Your task to perform on an android device: uninstall "LinkedIn" Image 0: 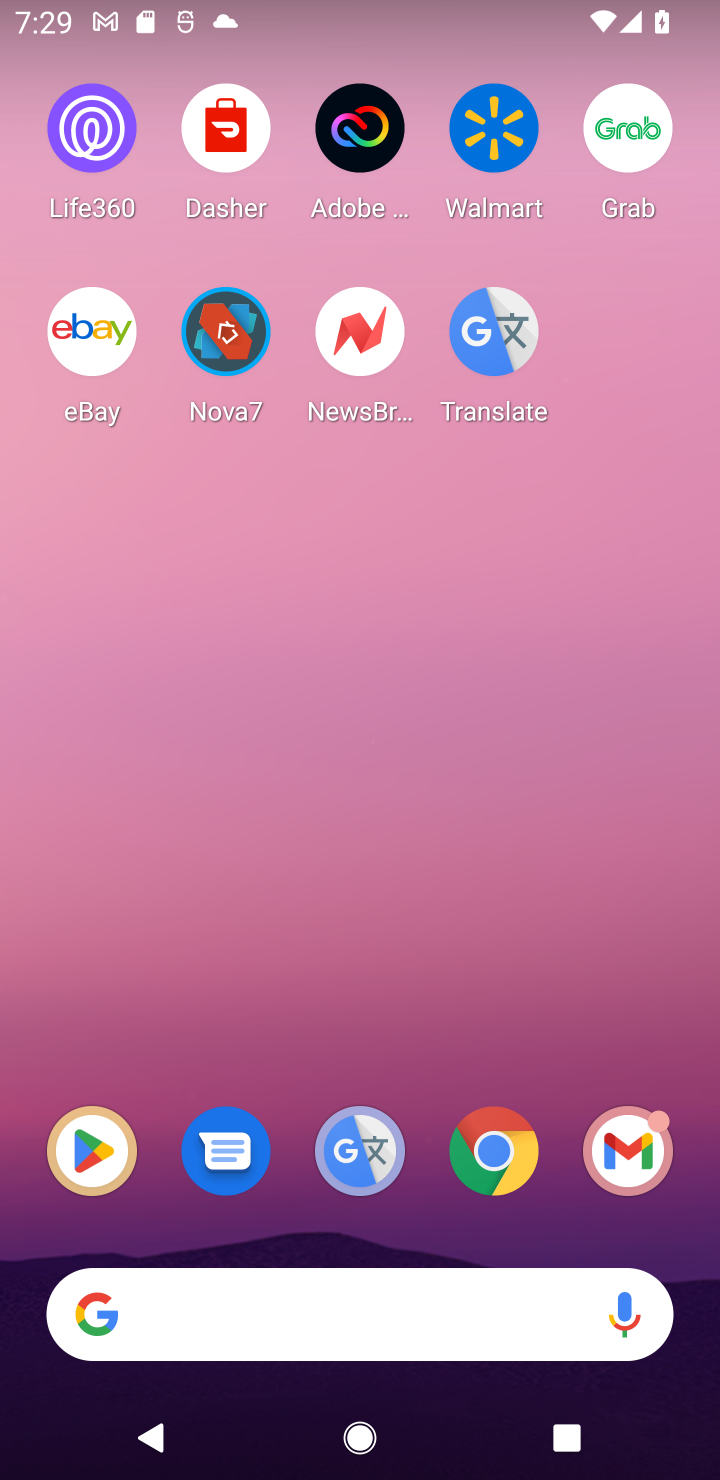
Step 0: click (125, 1165)
Your task to perform on an android device: uninstall "LinkedIn" Image 1: 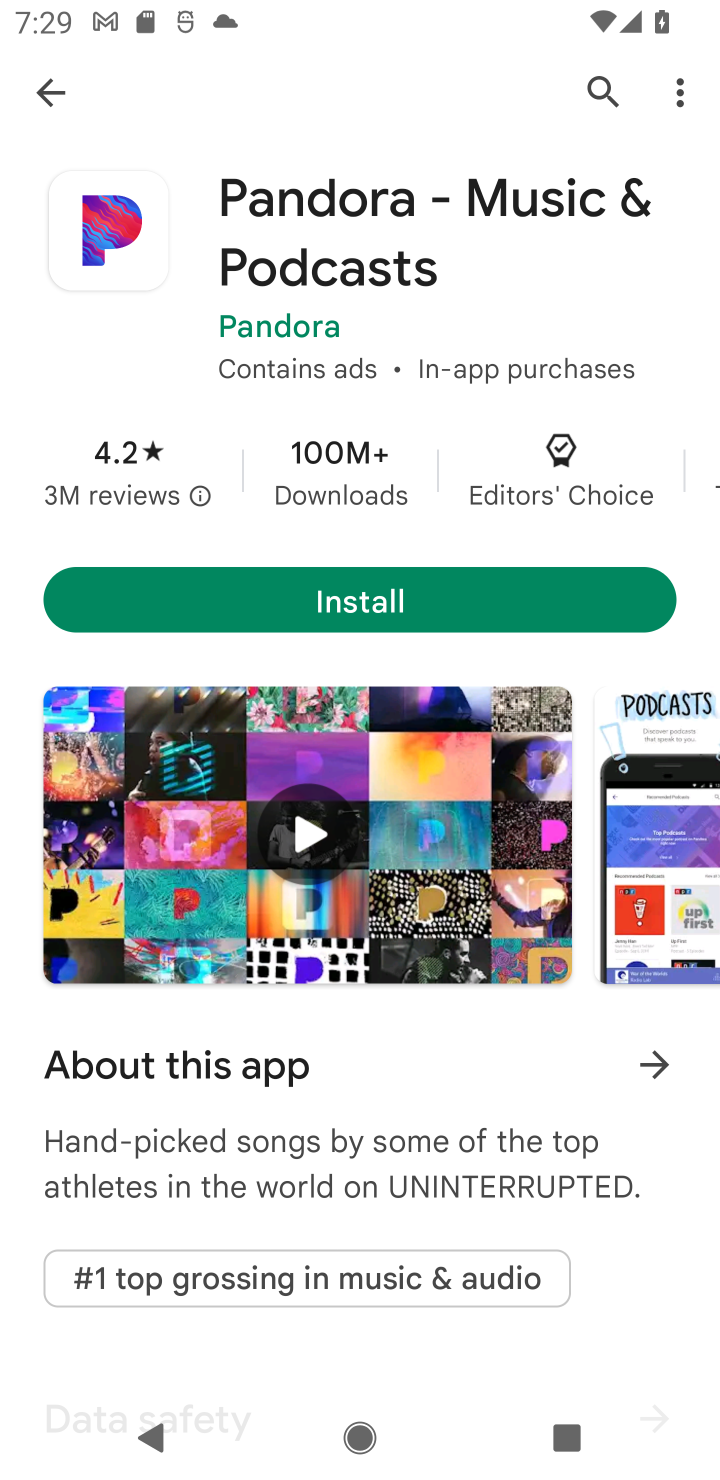
Step 1: click (595, 89)
Your task to perform on an android device: uninstall "LinkedIn" Image 2: 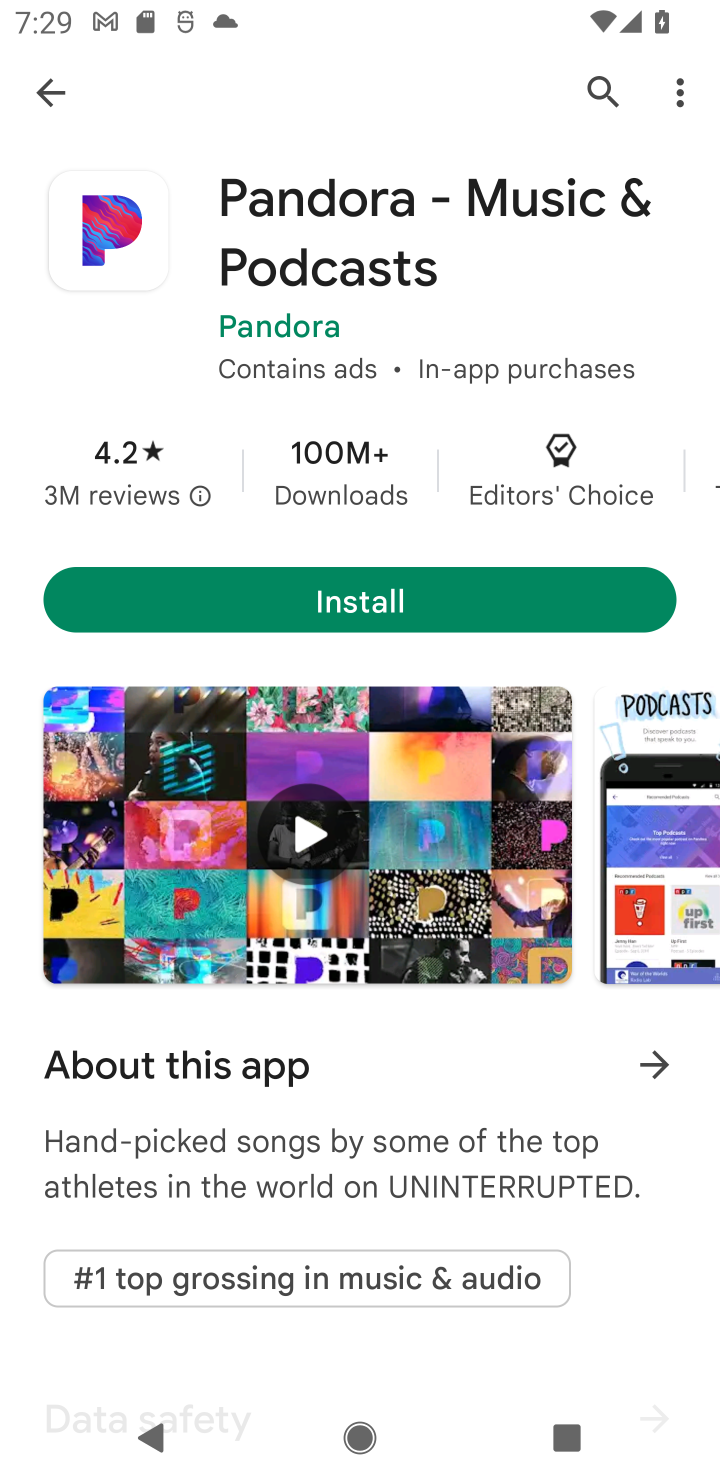
Step 2: click (599, 74)
Your task to perform on an android device: uninstall "LinkedIn" Image 3: 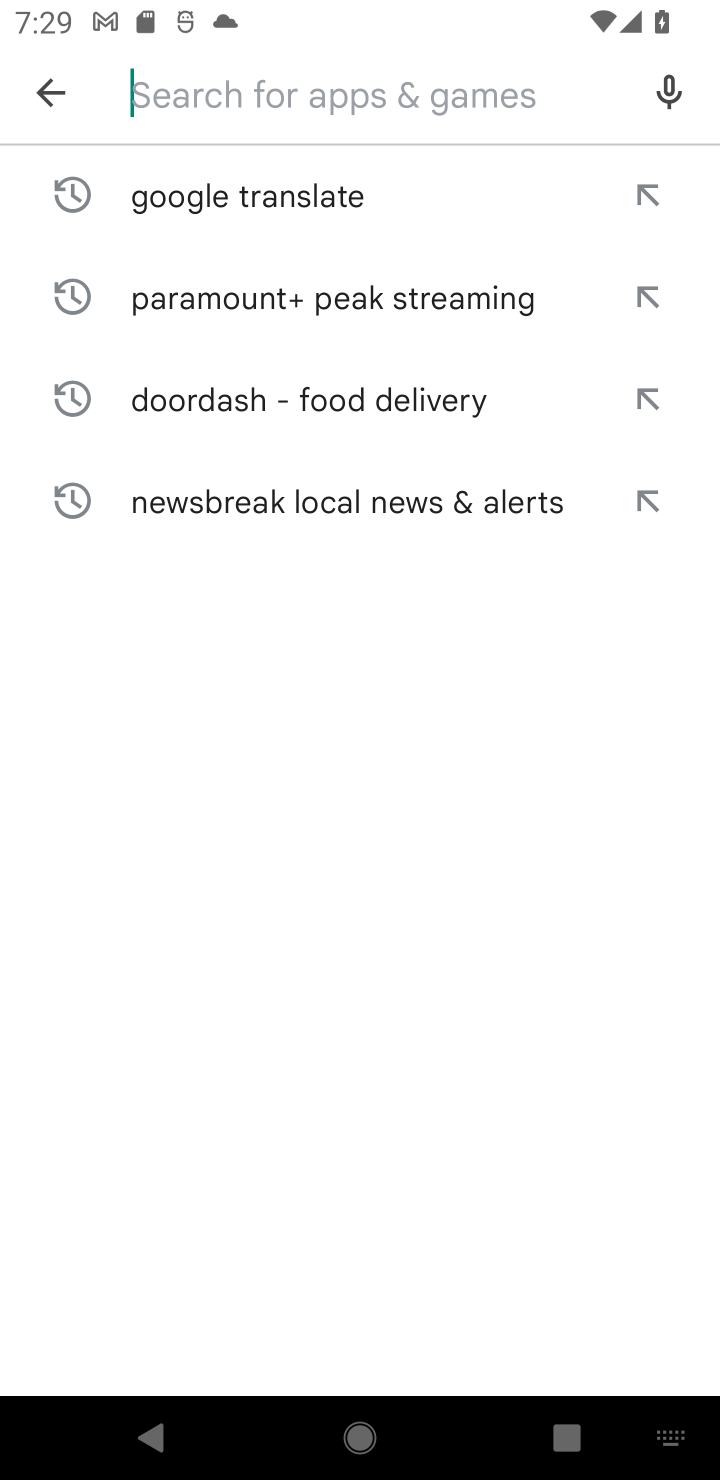
Step 3: type "LinkedIn"
Your task to perform on an android device: uninstall "LinkedIn" Image 4: 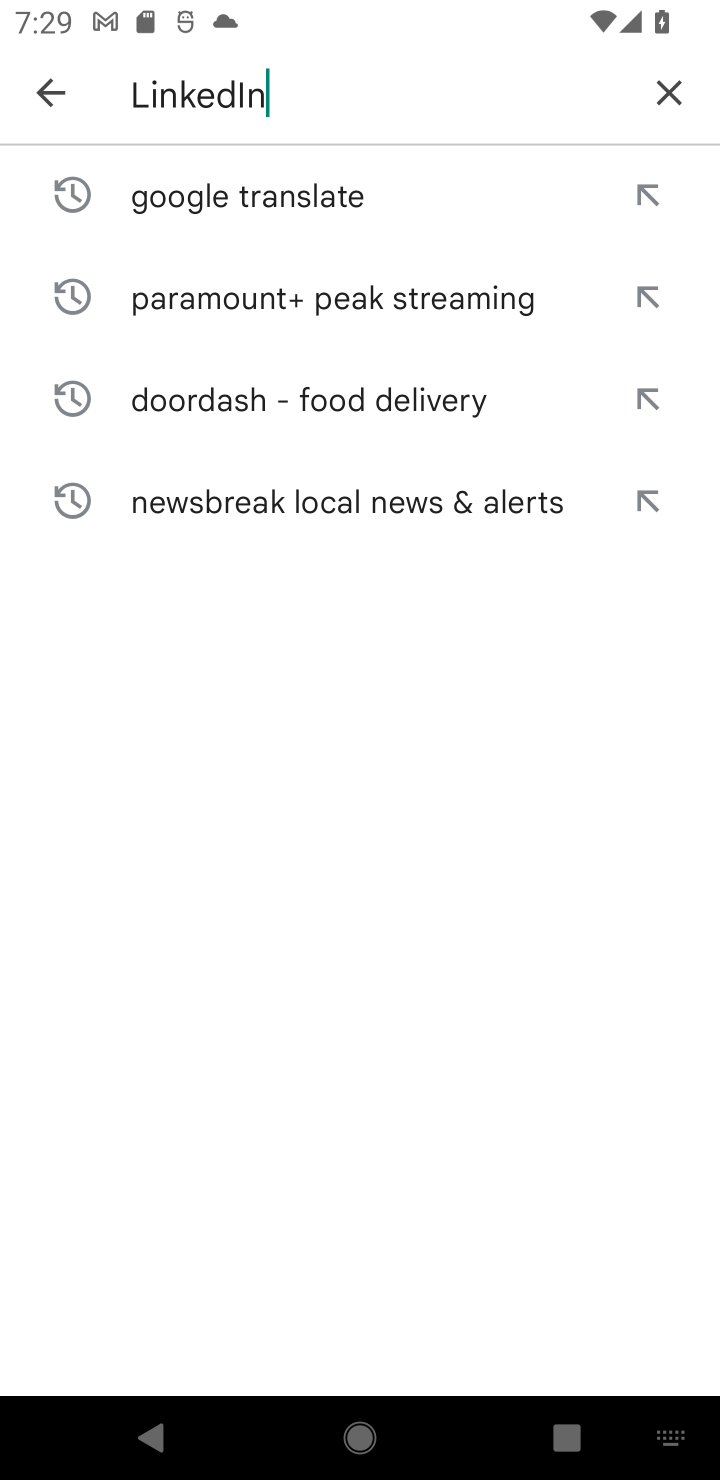
Step 4: type ""
Your task to perform on an android device: uninstall "LinkedIn" Image 5: 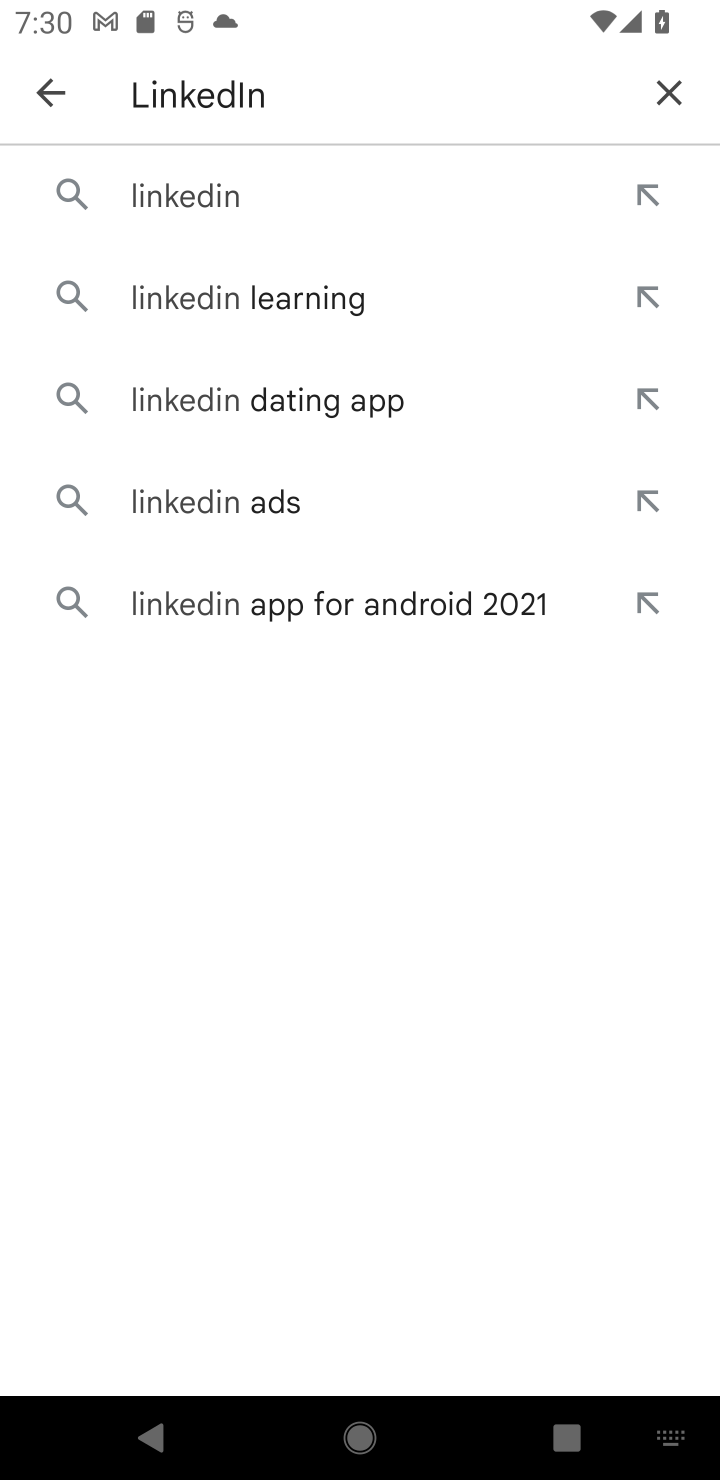
Step 5: click (311, 199)
Your task to perform on an android device: uninstall "LinkedIn" Image 6: 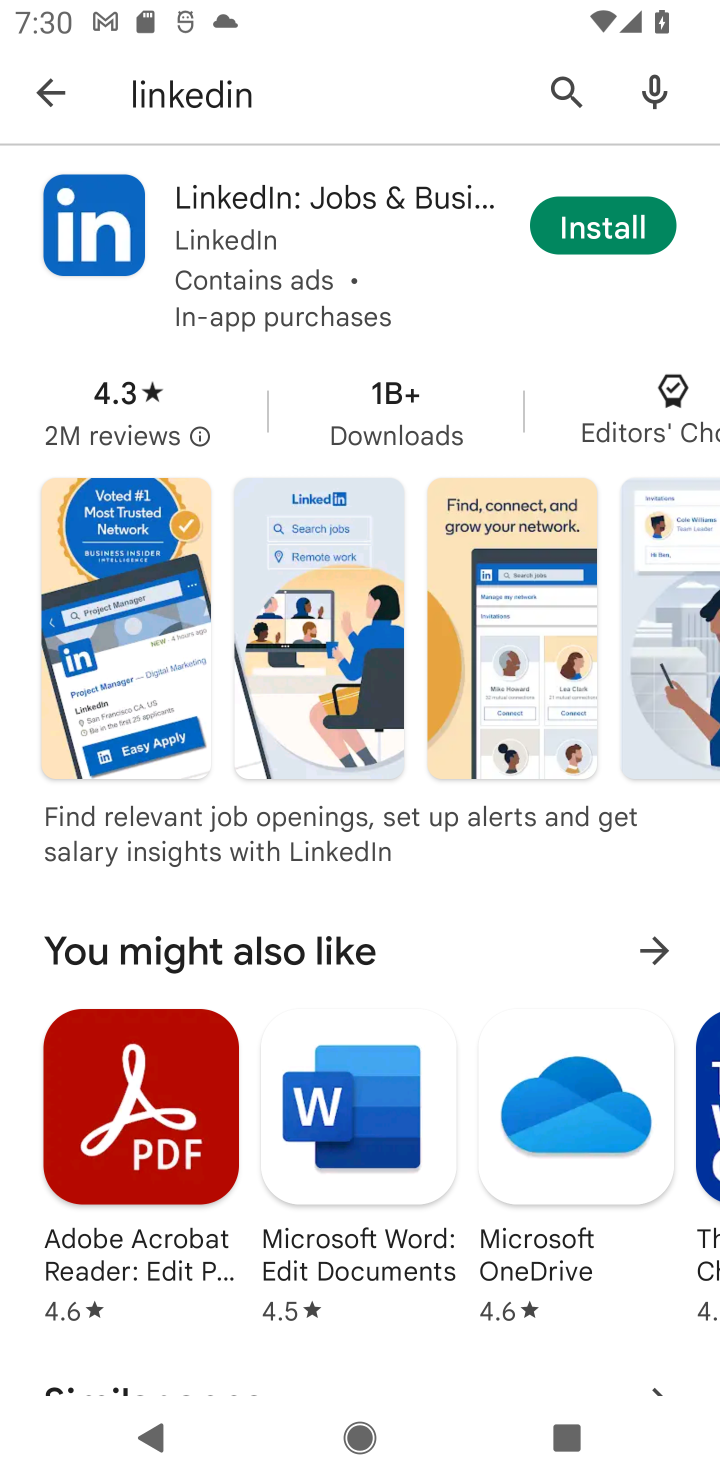
Step 6: task complete